Your task to perform on an android device: turn on improve location accuracy Image 0: 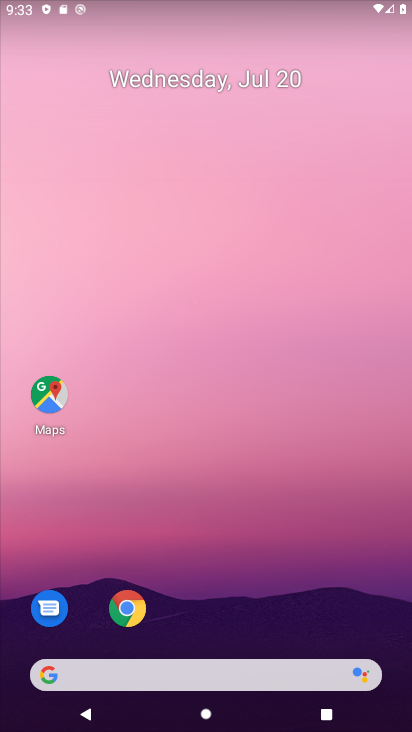
Step 0: drag from (264, 642) to (264, 271)
Your task to perform on an android device: turn on improve location accuracy Image 1: 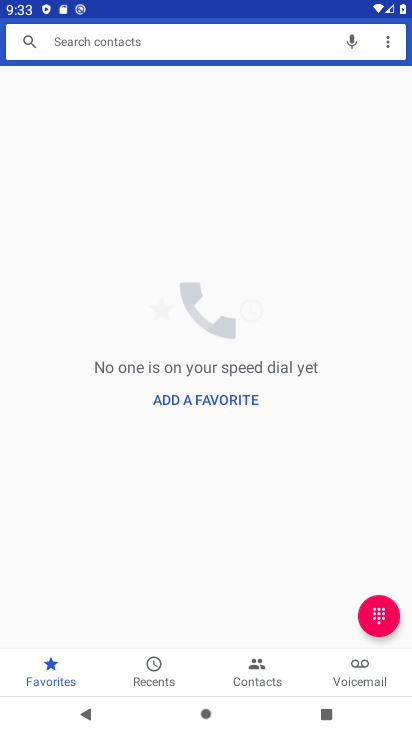
Step 1: press back button
Your task to perform on an android device: turn on improve location accuracy Image 2: 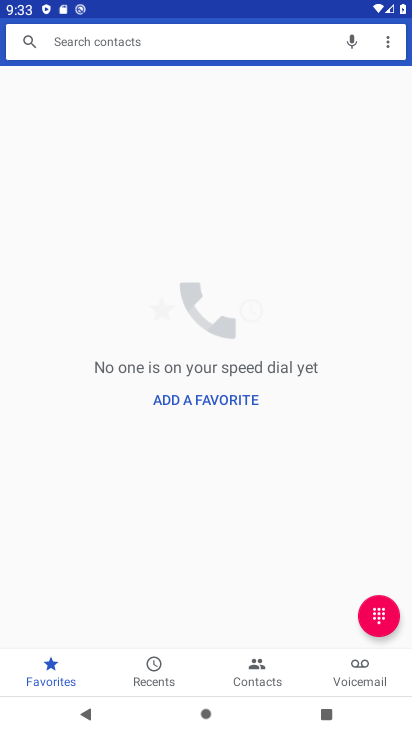
Step 2: press back button
Your task to perform on an android device: turn on improve location accuracy Image 3: 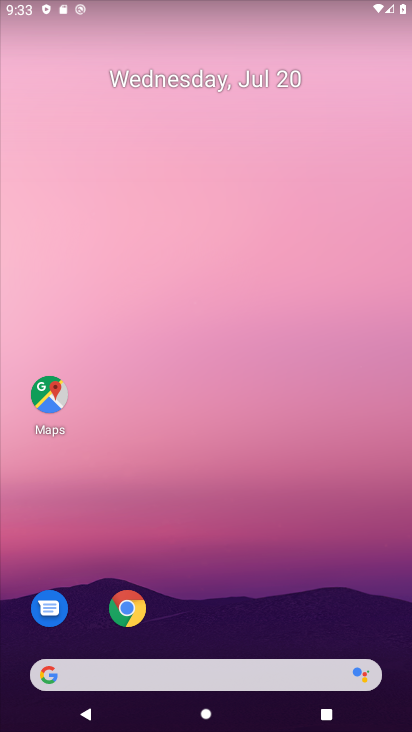
Step 3: drag from (271, 655) to (283, 304)
Your task to perform on an android device: turn on improve location accuracy Image 4: 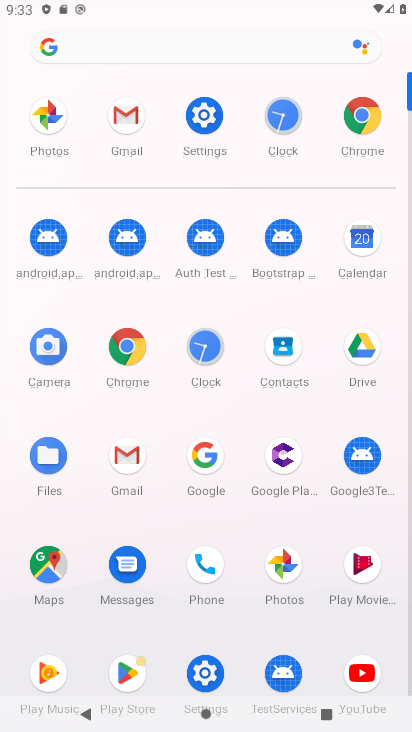
Step 4: click (359, 123)
Your task to perform on an android device: turn on improve location accuracy Image 5: 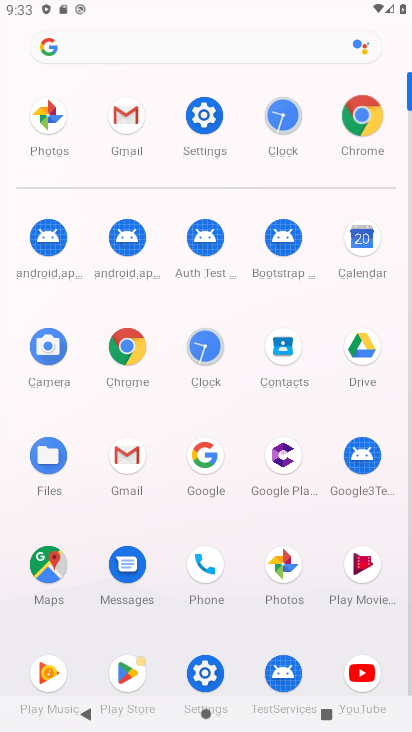
Step 5: click (358, 124)
Your task to perform on an android device: turn on improve location accuracy Image 6: 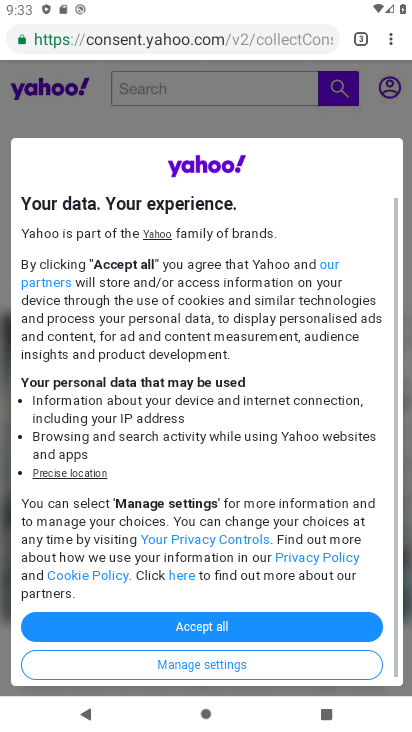
Step 6: drag from (388, 43) to (241, 479)
Your task to perform on an android device: turn on improve location accuracy Image 7: 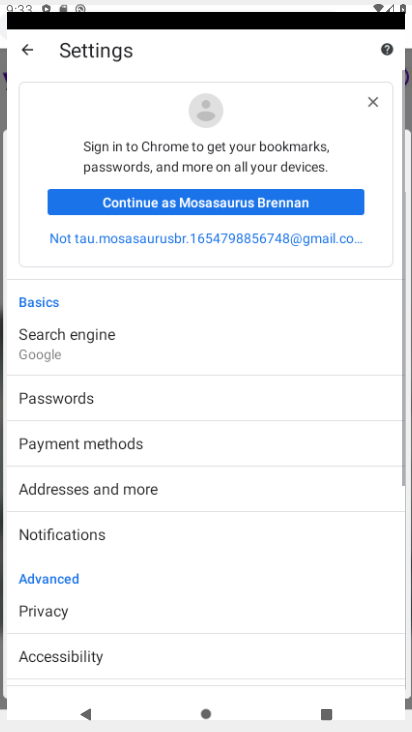
Step 7: press back button
Your task to perform on an android device: turn on improve location accuracy Image 8: 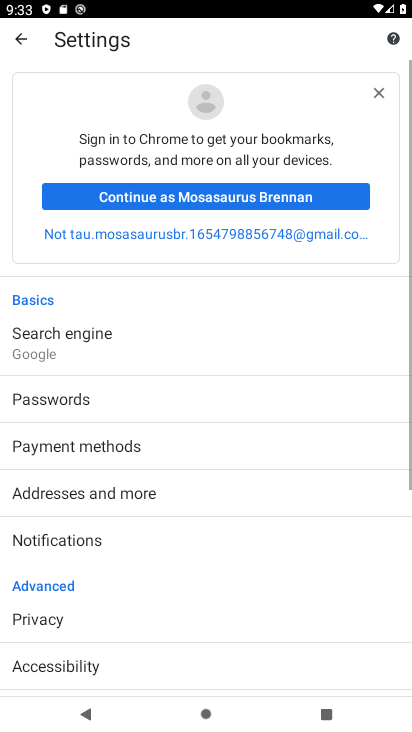
Step 8: press back button
Your task to perform on an android device: turn on improve location accuracy Image 9: 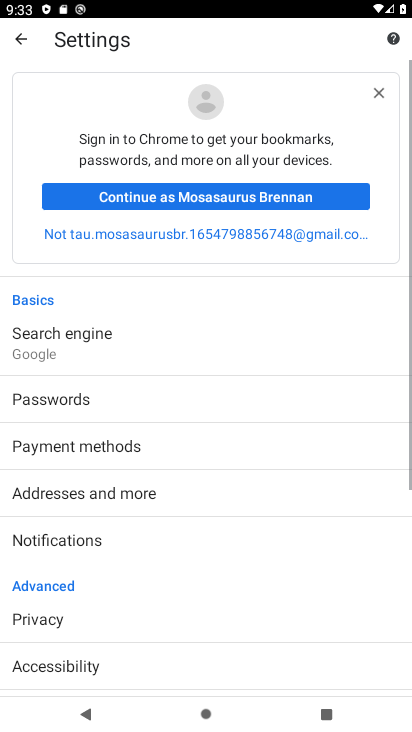
Step 9: click (25, 36)
Your task to perform on an android device: turn on improve location accuracy Image 10: 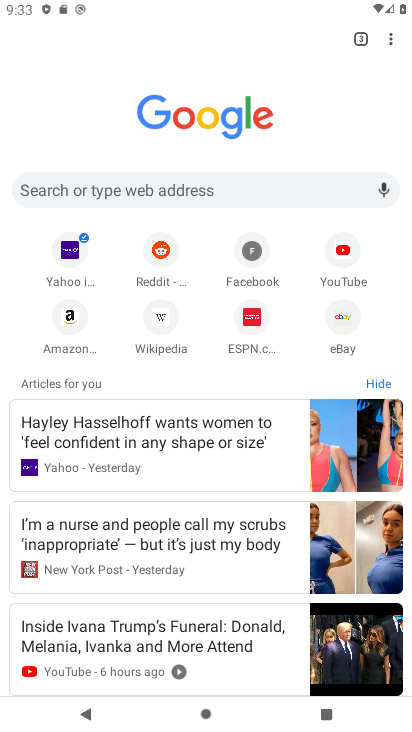
Step 10: press home button
Your task to perform on an android device: turn on improve location accuracy Image 11: 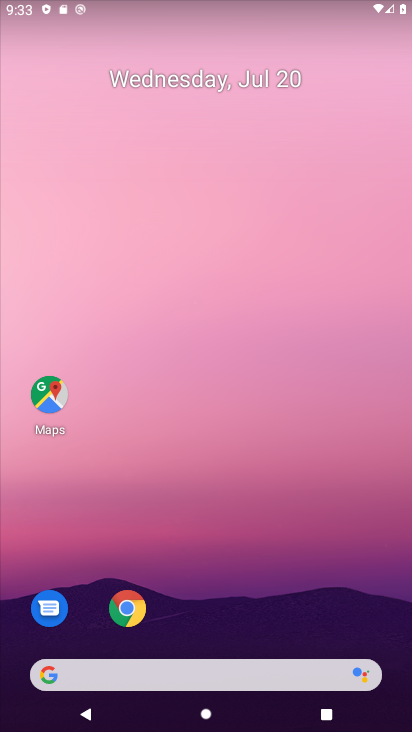
Step 11: drag from (236, 671) to (226, 235)
Your task to perform on an android device: turn on improve location accuracy Image 12: 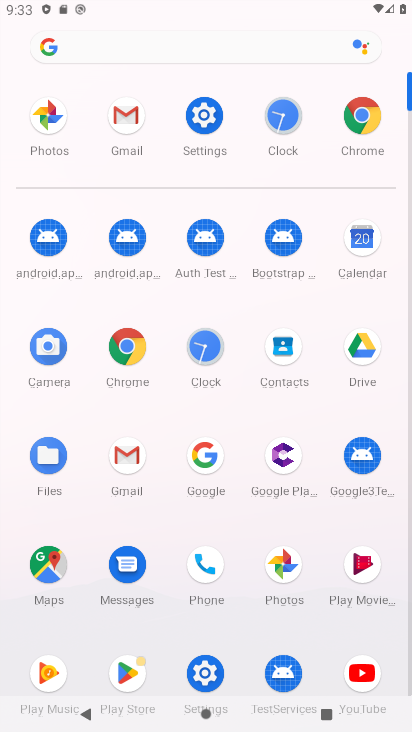
Step 12: click (208, 126)
Your task to perform on an android device: turn on improve location accuracy Image 13: 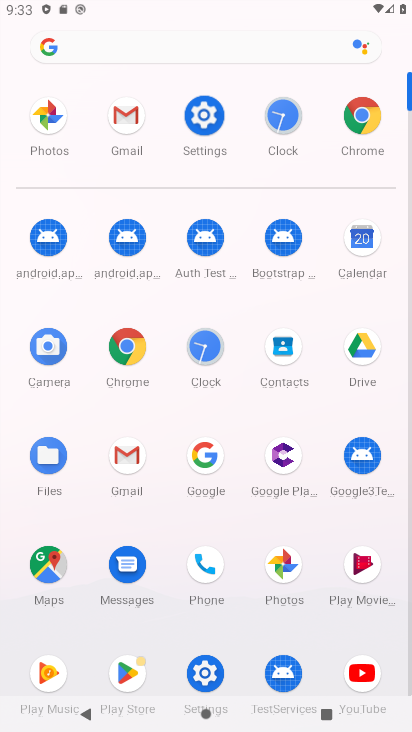
Step 13: click (207, 125)
Your task to perform on an android device: turn on improve location accuracy Image 14: 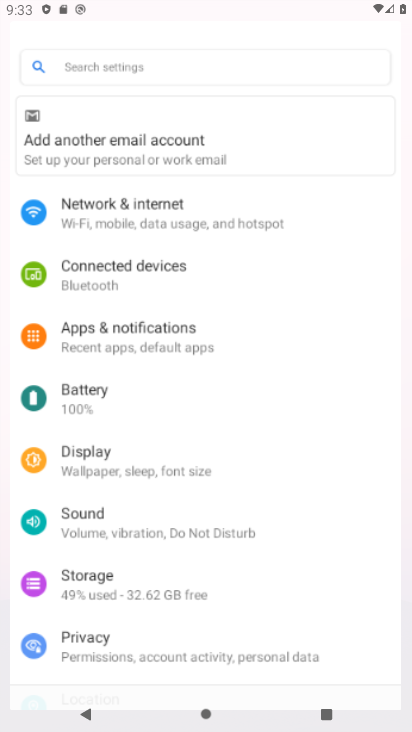
Step 14: click (207, 125)
Your task to perform on an android device: turn on improve location accuracy Image 15: 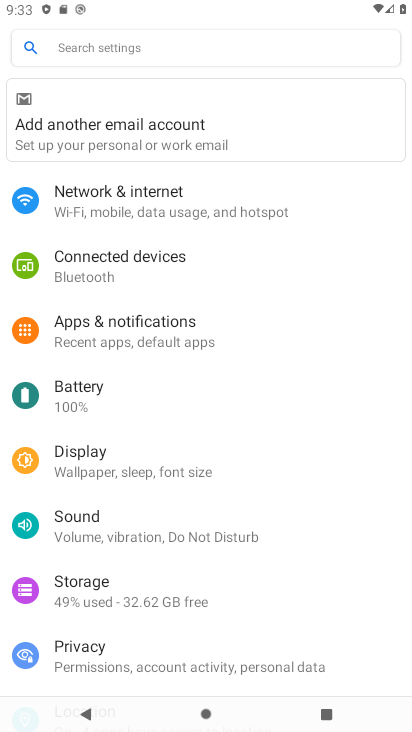
Step 15: drag from (150, 358) to (156, 196)
Your task to perform on an android device: turn on improve location accuracy Image 16: 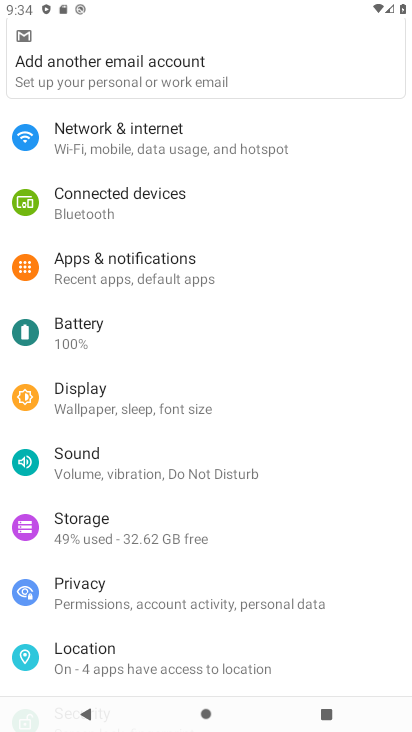
Step 16: click (80, 659)
Your task to perform on an android device: turn on improve location accuracy Image 17: 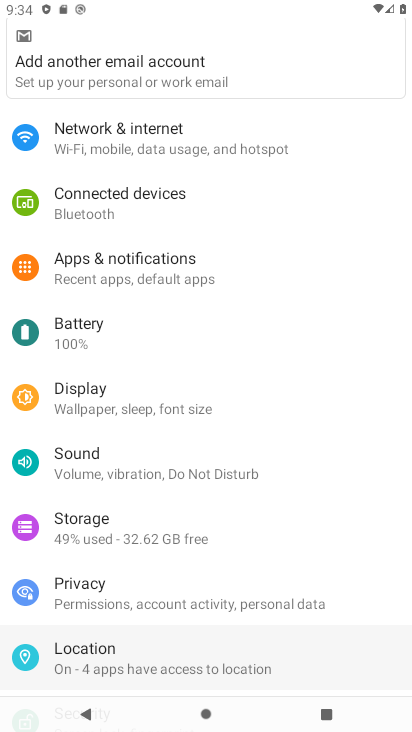
Step 17: click (86, 655)
Your task to perform on an android device: turn on improve location accuracy Image 18: 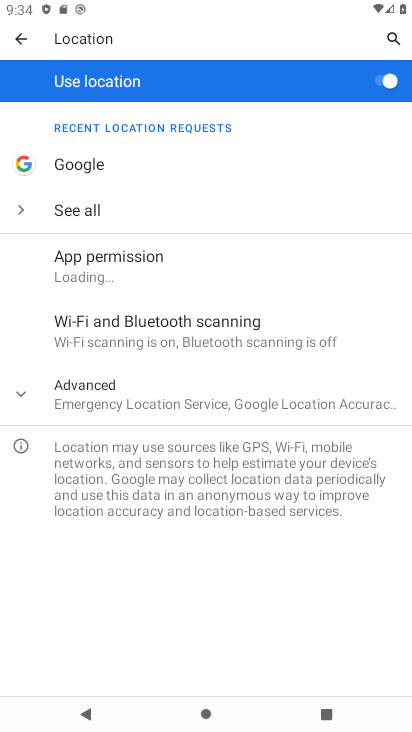
Step 18: click (83, 398)
Your task to perform on an android device: turn on improve location accuracy Image 19: 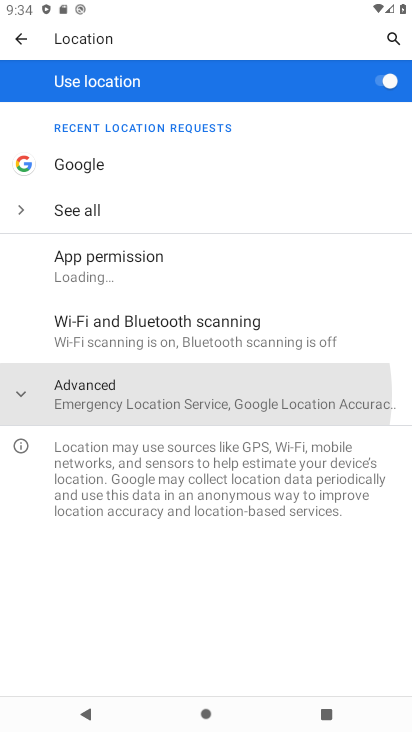
Step 19: click (91, 386)
Your task to perform on an android device: turn on improve location accuracy Image 20: 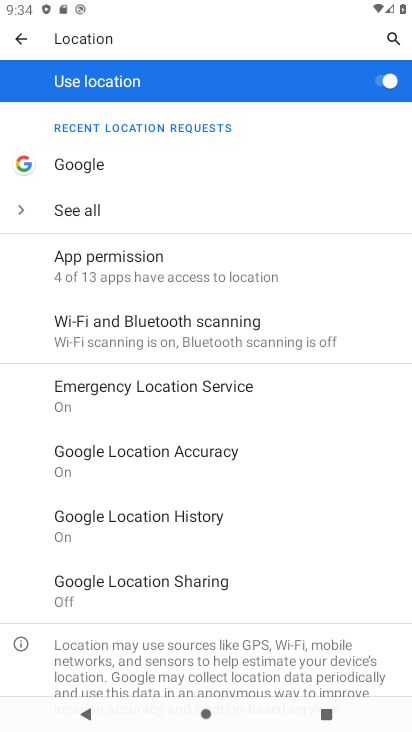
Step 20: click (160, 449)
Your task to perform on an android device: turn on improve location accuracy Image 21: 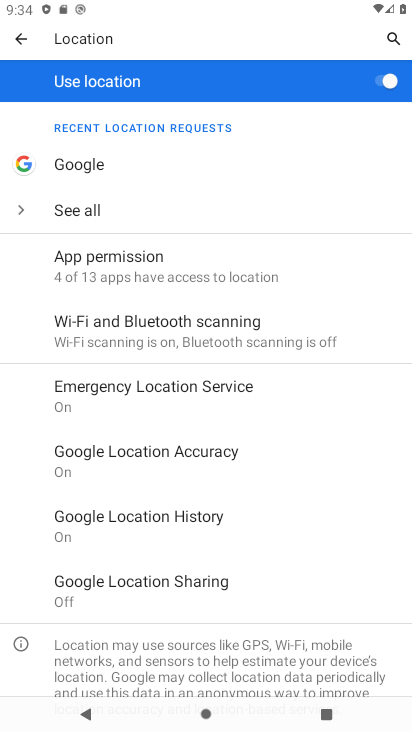
Step 21: click (160, 447)
Your task to perform on an android device: turn on improve location accuracy Image 22: 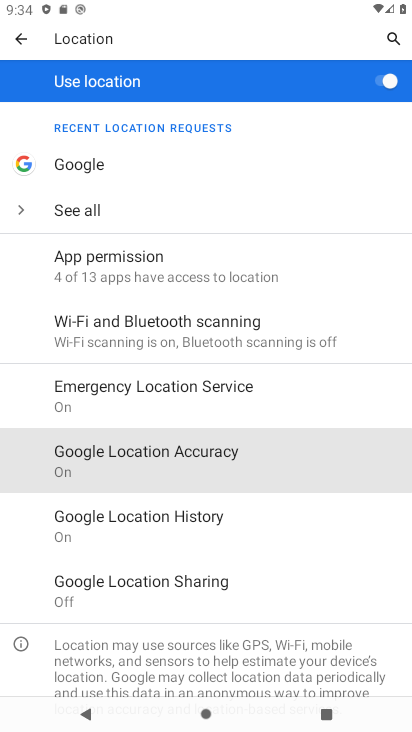
Step 22: click (162, 445)
Your task to perform on an android device: turn on improve location accuracy Image 23: 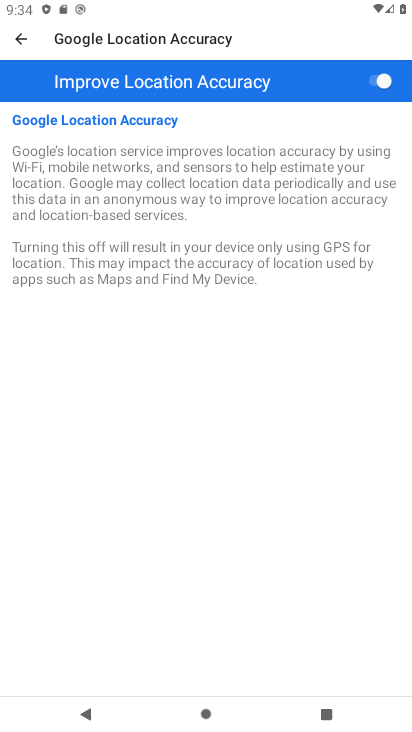
Step 23: task complete